Your task to perform on an android device: toggle airplane mode Image 0: 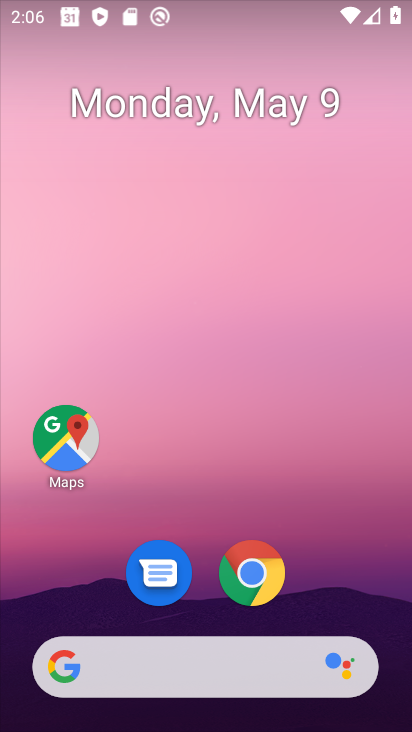
Step 0: drag from (394, 656) to (290, 165)
Your task to perform on an android device: toggle airplane mode Image 1: 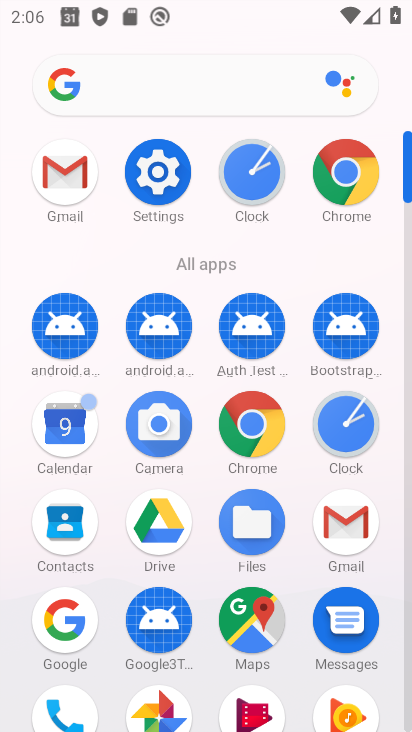
Step 1: click (161, 180)
Your task to perform on an android device: toggle airplane mode Image 2: 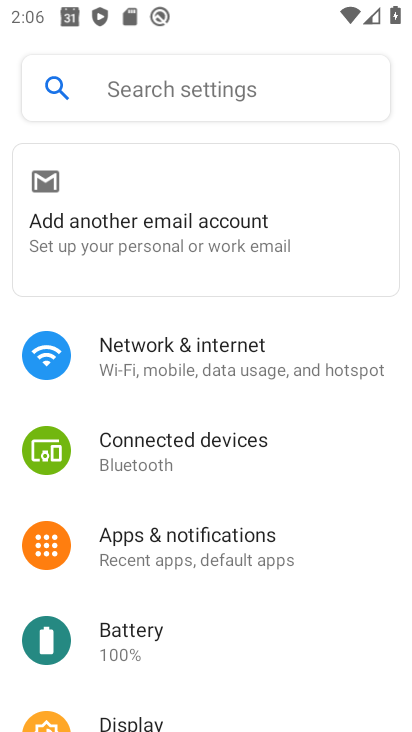
Step 2: click (190, 351)
Your task to perform on an android device: toggle airplane mode Image 3: 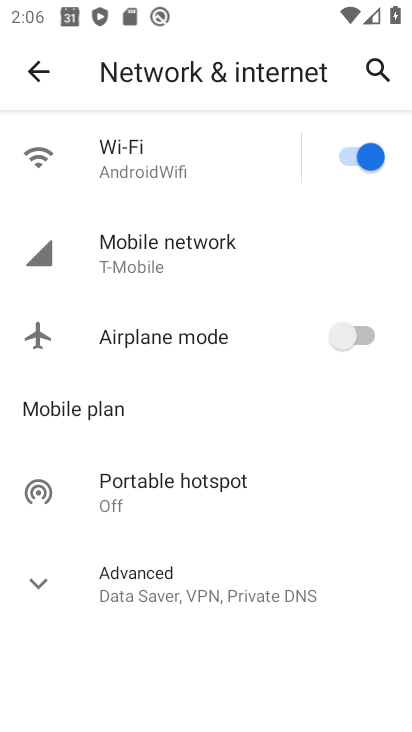
Step 3: click (347, 331)
Your task to perform on an android device: toggle airplane mode Image 4: 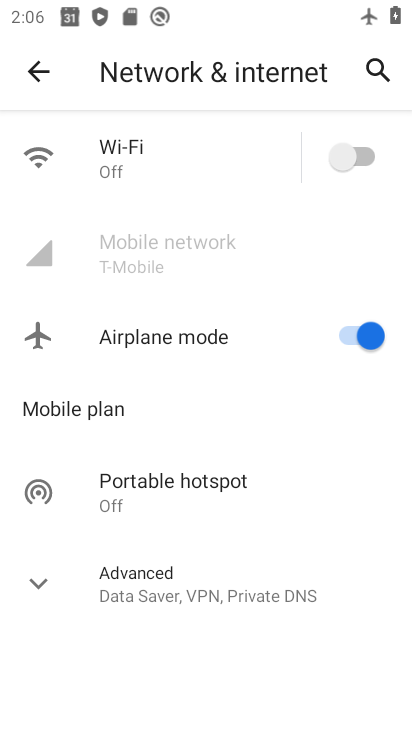
Step 4: task complete